Your task to perform on an android device: toggle javascript in the chrome app Image 0: 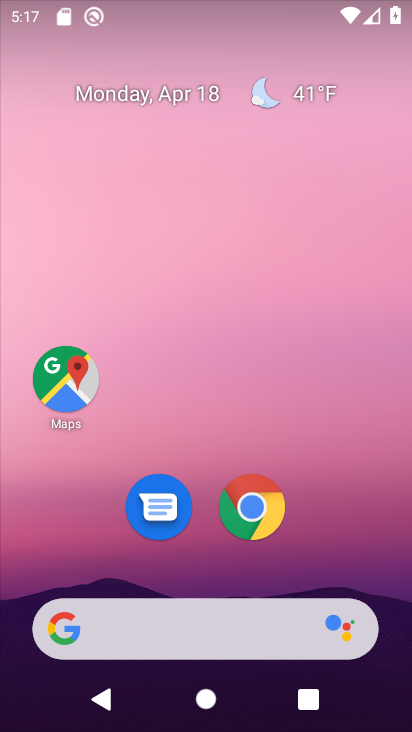
Step 0: drag from (340, 519) to (351, 95)
Your task to perform on an android device: toggle javascript in the chrome app Image 1: 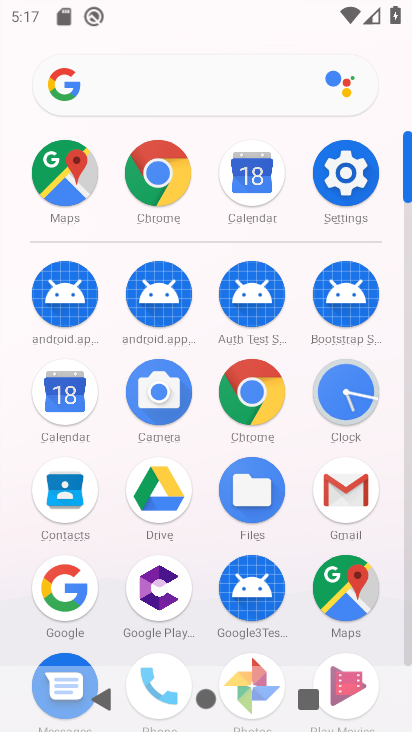
Step 1: click (258, 391)
Your task to perform on an android device: toggle javascript in the chrome app Image 2: 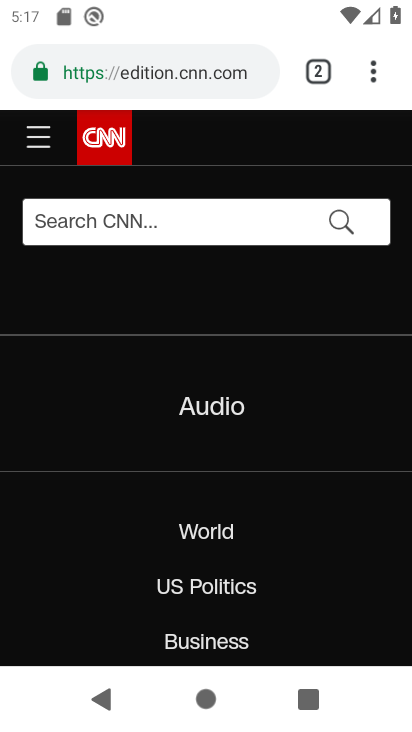
Step 2: click (383, 69)
Your task to perform on an android device: toggle javascript in the chrome app Image 3: 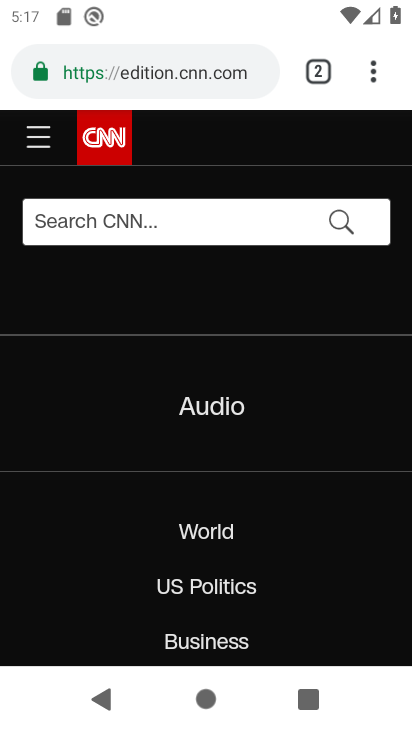
Step 3: click (384, 80)
Your task to perform on an android device: toggle javascript in the chrome app Image 4: 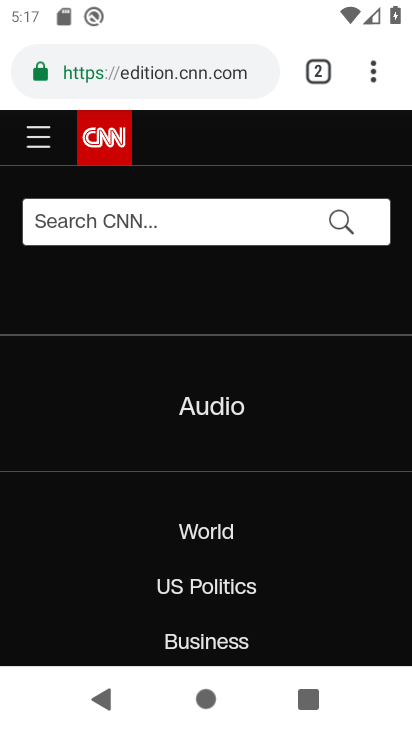
Step 4: click (353, 72)
Your task to perform on an android device: toggle javascript in the chrome app Image 5: 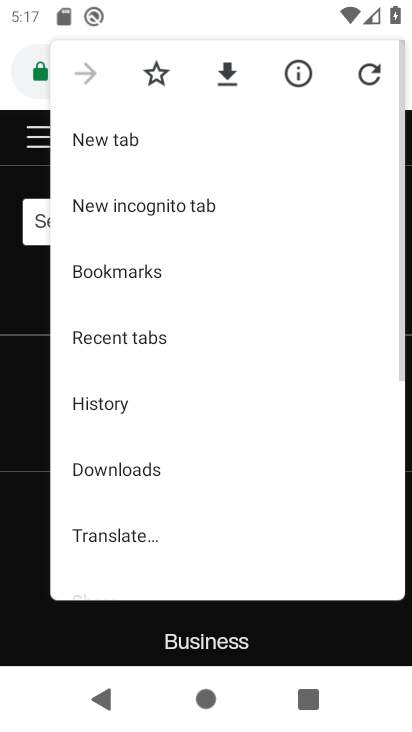
Step 5: drag from (286, 482) to (266, 76)
Your task to perform on an android device: toggle javascript in the chrome app Image 6: 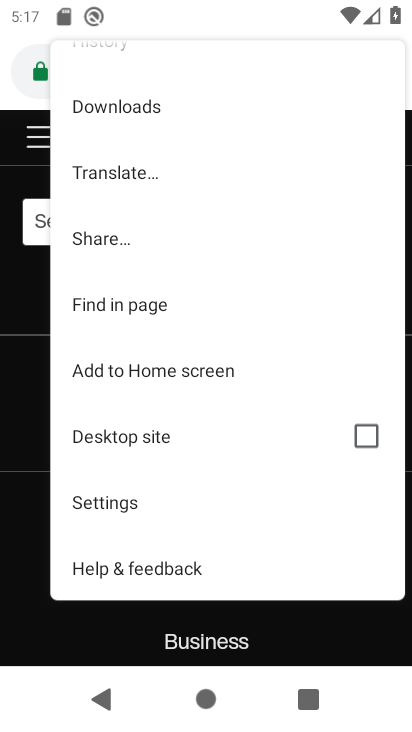
Step 6: click (161, 500)
Your task to perform on an android device: toggle javascript in the chrome app Image 7: 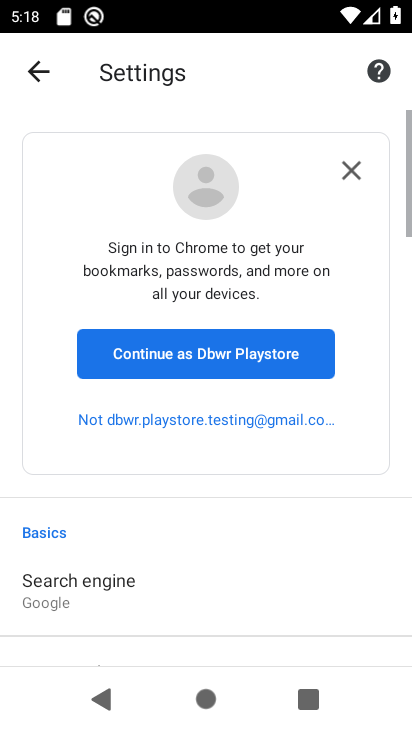
Step 7: drag from (257, 583) to (289, 120)
Your task to perform on an android device: toggle javascript in the chrome app Image 8: 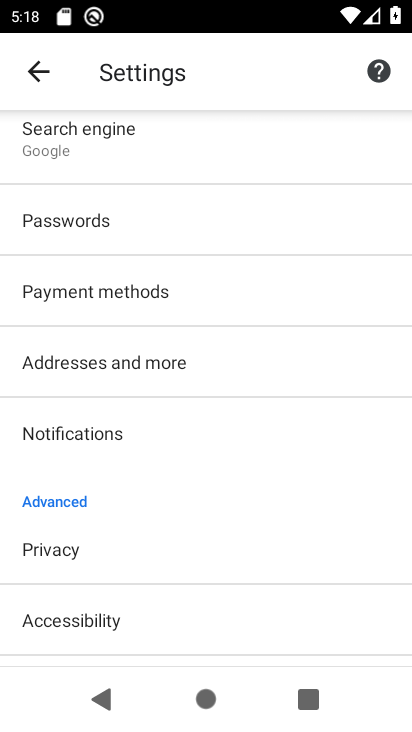
Step 8: drag from (270, 580) to (312, 234)
Your task to perform on an android device: toggle javascript in the chrome app Image 9: 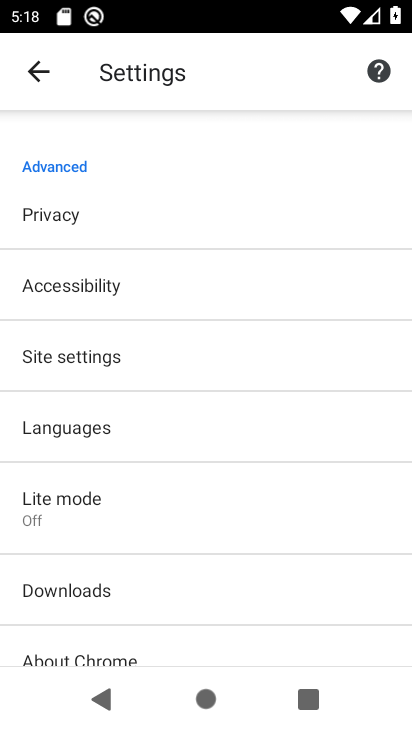
Step 9: click (117, 357)
Your task to perform on an android device: toggle javascript in the chrome app Image 10: 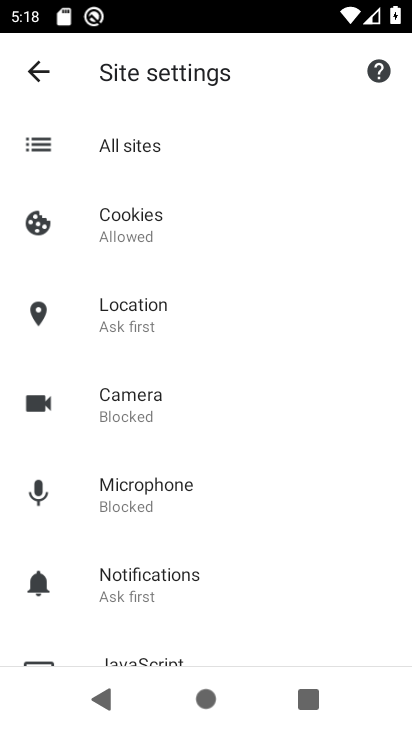
Step 10: drag from (215, 596) to (219, 171)
Your task to perform on an android device: toggle javascript in the chrome app Image 11: 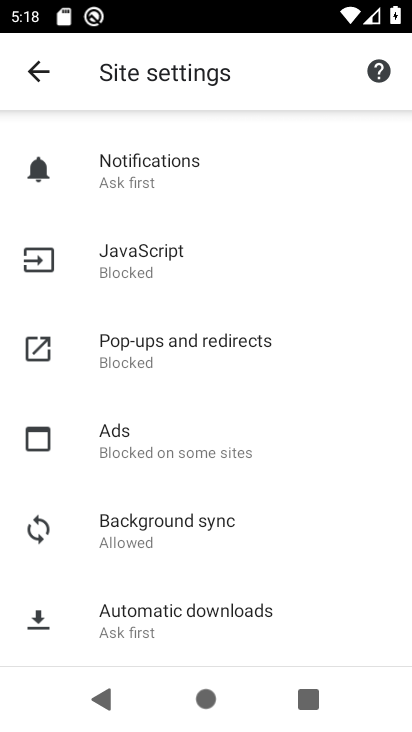
Step 11: click (183, 261)
Your task to perform on an android device: toggle javascript in the chrome app Image 12: 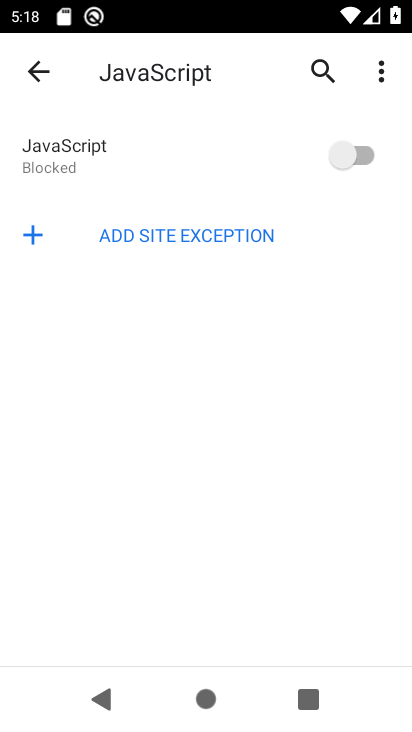
Step 12: click (371, 147)
Your task to perform on an android device: toggle javascript in the chrome app Image 13: 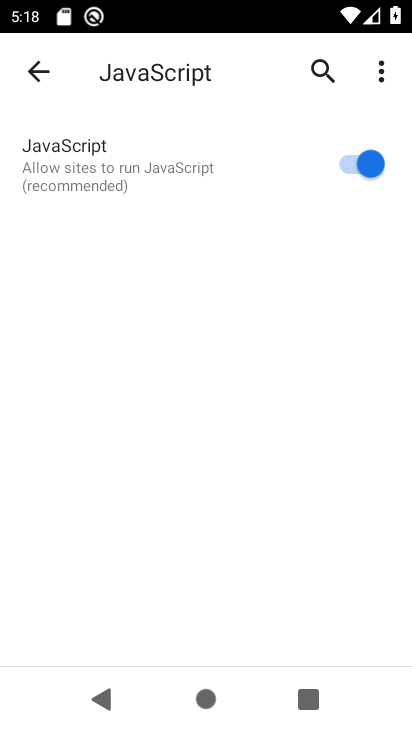
Step 13: task complete